Your task to perform on an android device: show emergency info Image 0: 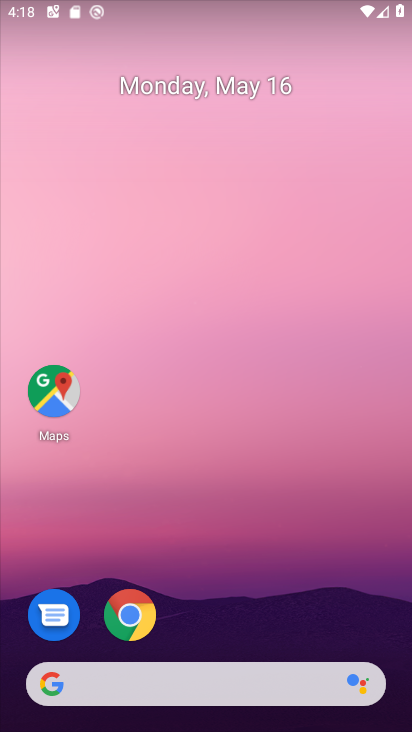
Step 0: drag from (262, 612) to (257, 158)
Your task to perform on an android device: show emergency info Image 1: 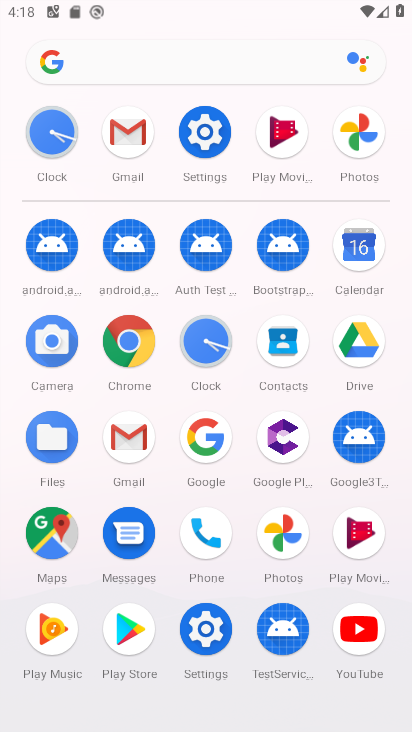
Step 1: click (203, 143)
Your task to perform on an android device: show emergency info Image 2: 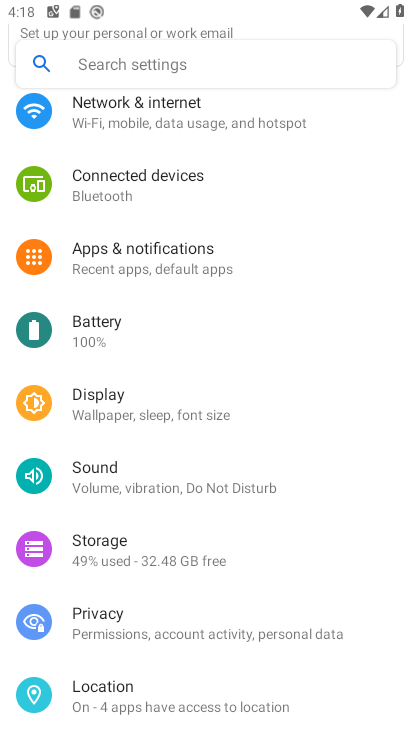
Step 2: drag from (191, 632) to (200, 140)
Your task to perform on an android device: show emergency info Image 3: 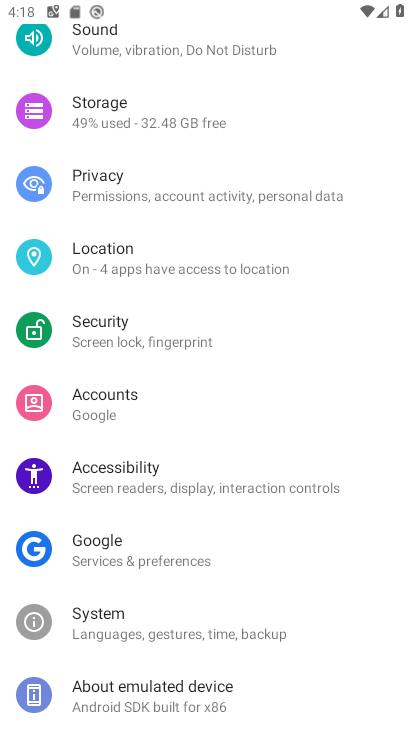
Step 3: click (135, 692)
Your task to perform on an android device: show emergency info Image 4: 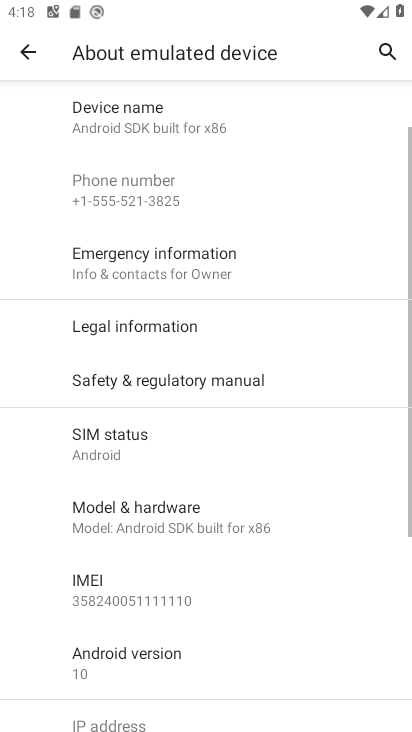
Step 4: task complete